Your task to perform on an android device: open app "Nova Launcher" (install if not already installed), go to login, and select forgot password Image 0: 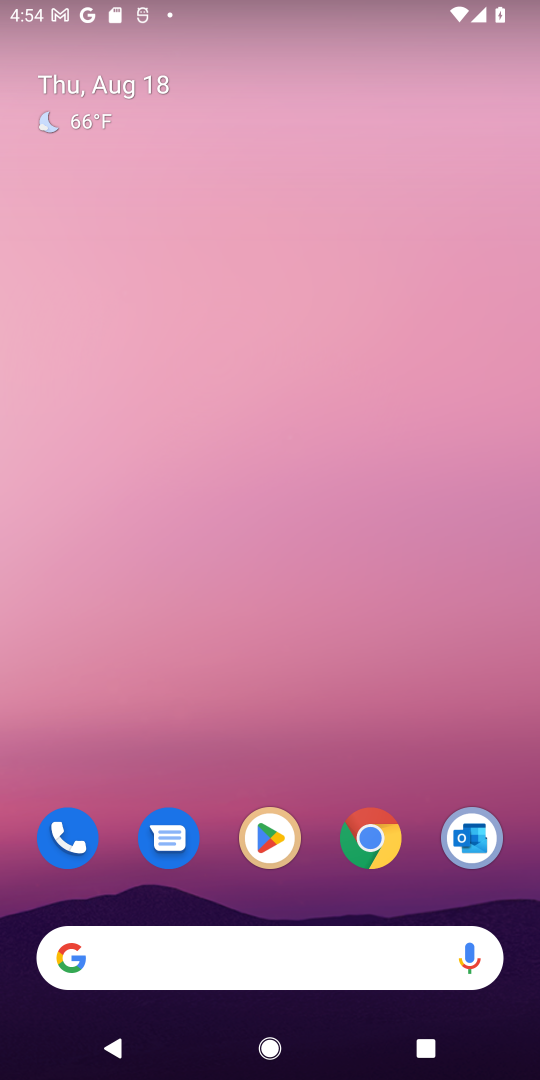
Step 0: drag from (200, 957) to (229, 245)
Your task to perform on an android device: open app "Nova Launcher" (install if not already installed), go to login, and select forgot password Image 1: 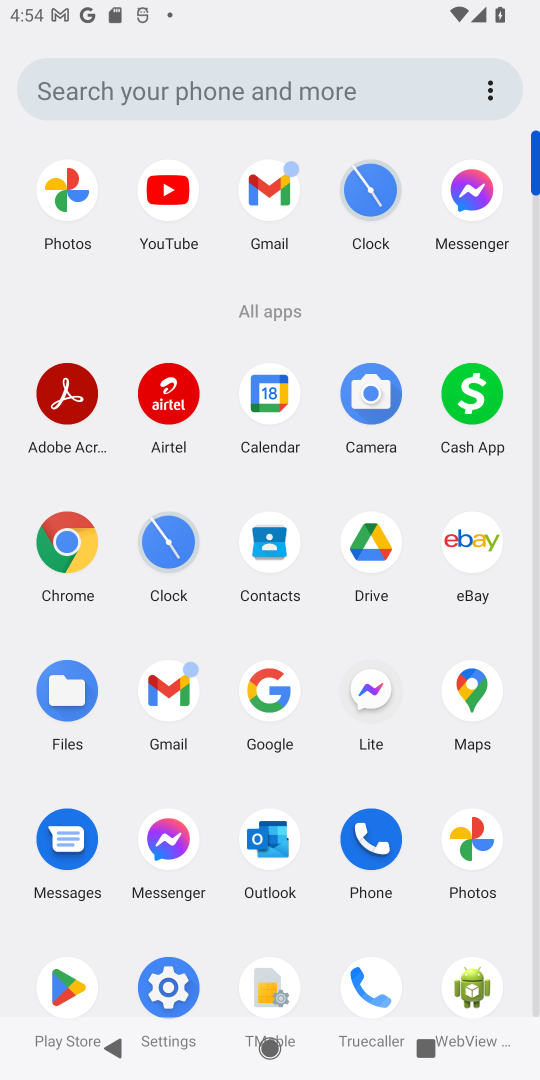
Step 1: click (70, 989)
Your task to perform on an android device: open app "Nova Launcher" (install if not already installed), go to login, and select forgot password Image 2: 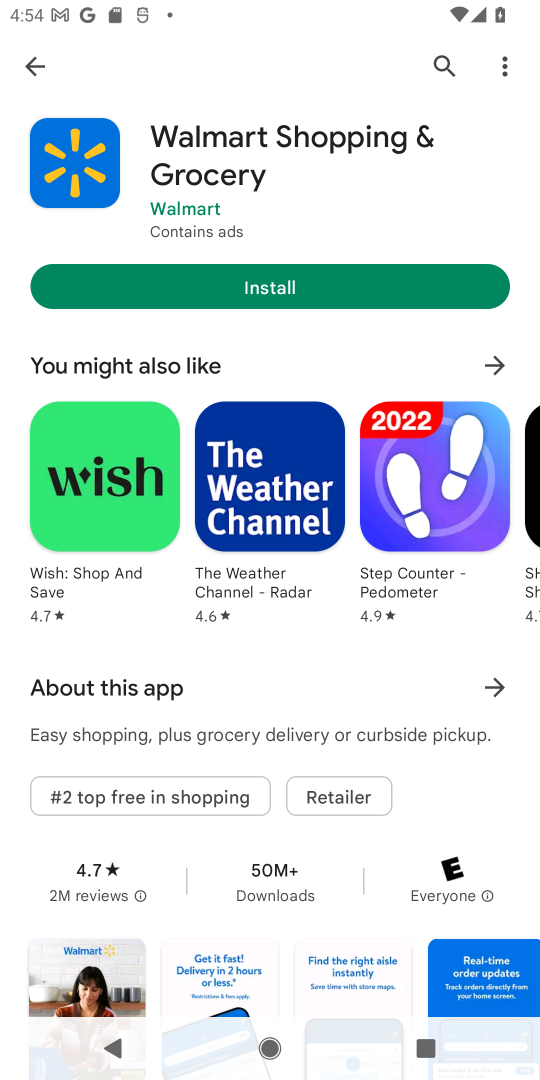
Step 2: press back button
Your task to perform on an android device: open app "Nova Launcher" (install if not already installed), go to login, and select forgot password Image 3: 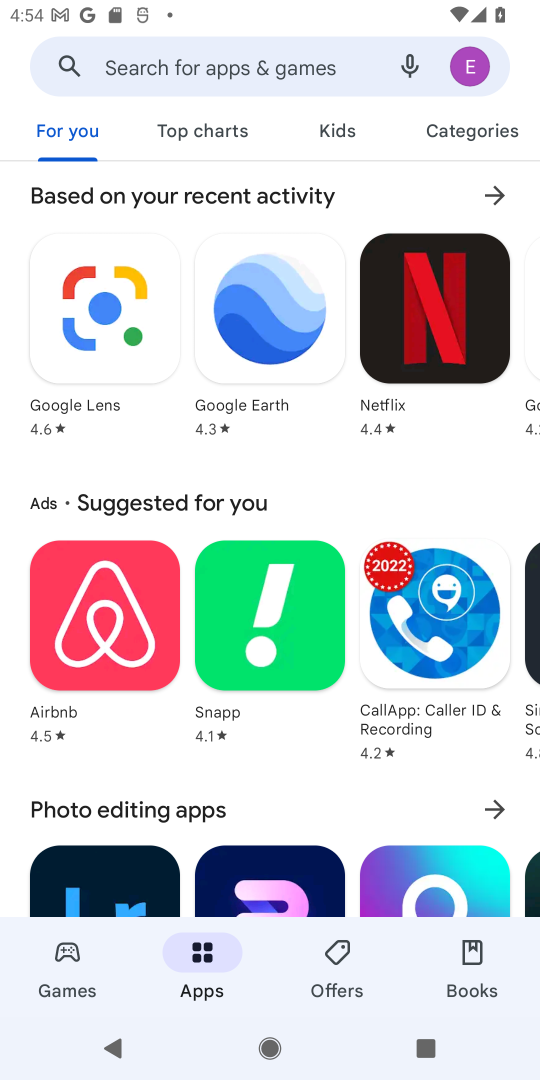
Step 3: click (236, 76)
Your task to perform on an android device: open app "Nova Launcher" (install if not already installed), go to login, and select forgot password Image 4: 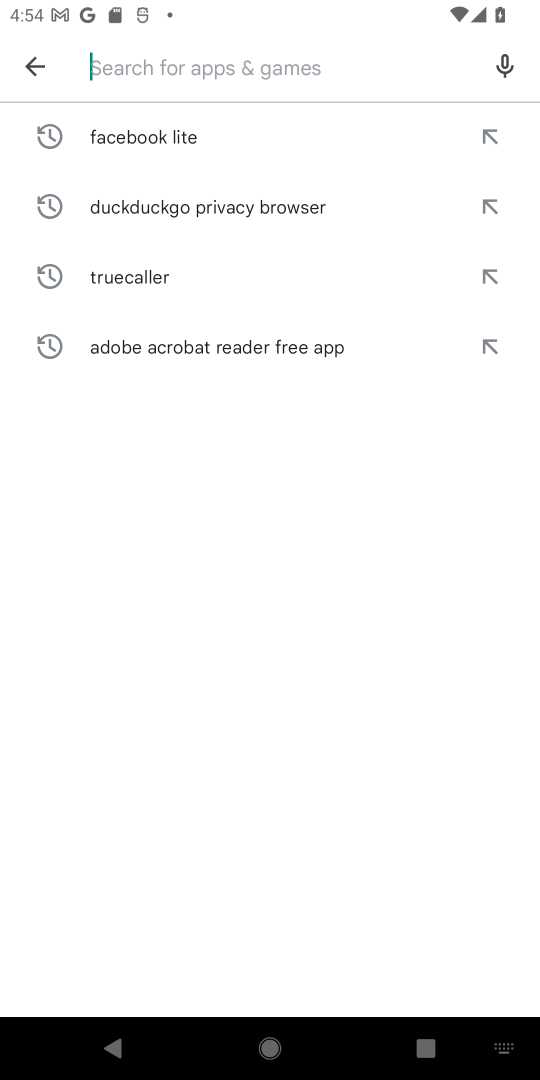
Step 4: type "Nova Launcher"
Your task to perform on an android device: open app "Nova Launcher" (install if not already installed), go to login, and select forgot password Image 5: 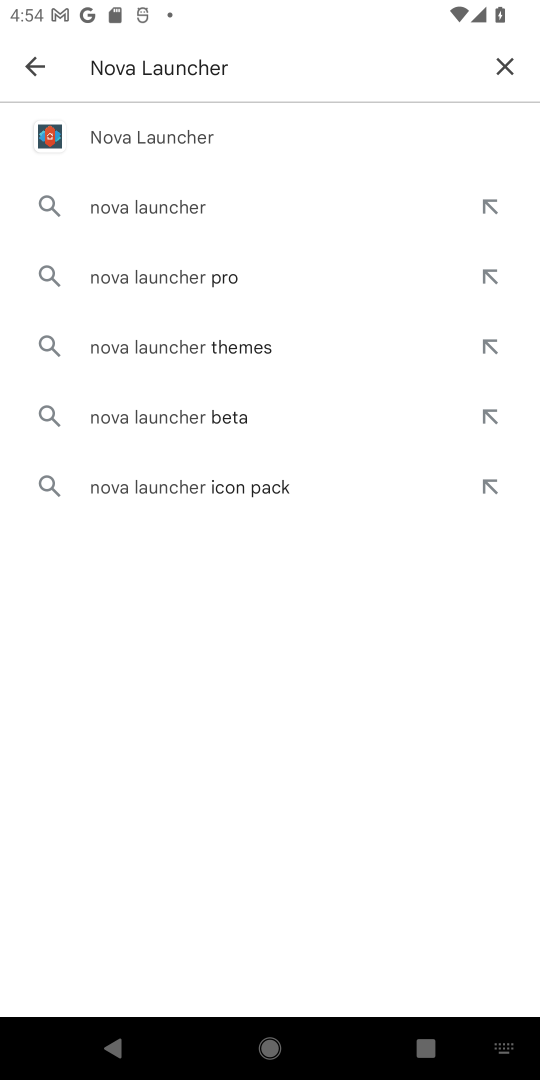
Step 5: click (179, 149)
Your task to perform on an android device: open app "Nova Launcher" (install if not already installed), go to login, and select forgot password Image 6: 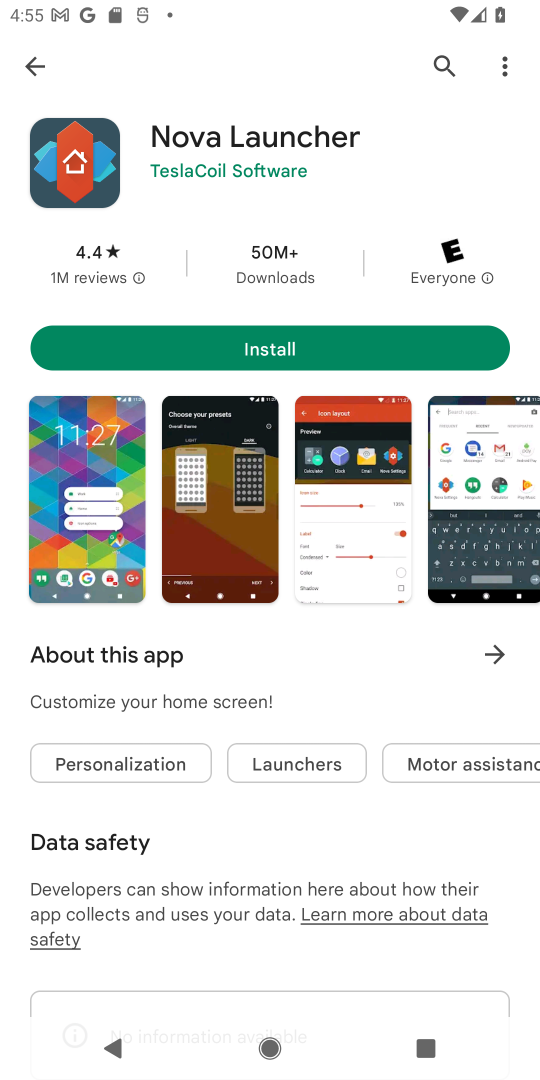
Step 6: click (282, 350)
Your task to perform on an android device: open app "Nova Launcher" (install if not already installed), go to login, and select forgot password Image 7: 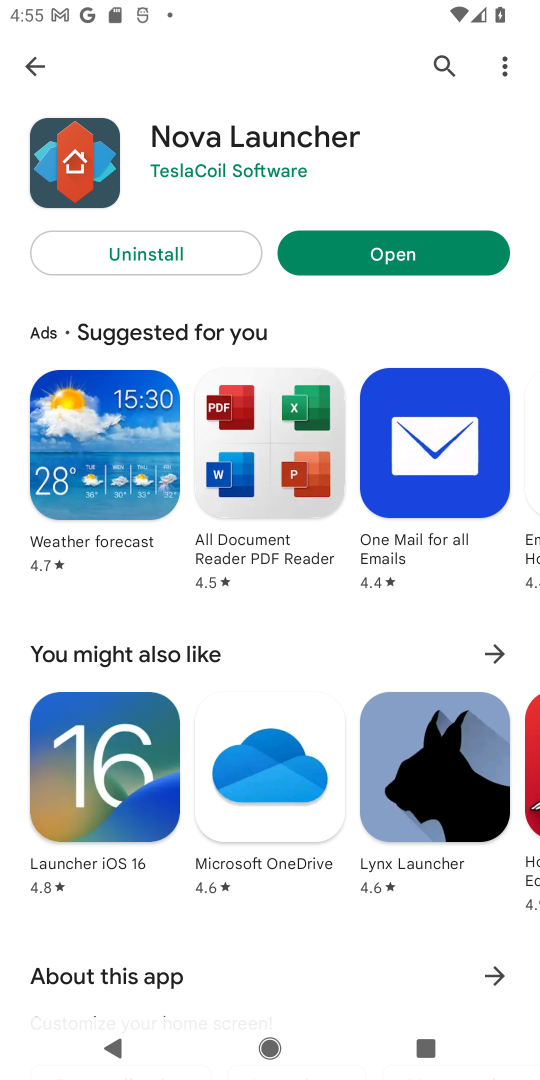
Step 7: click (383, 259)
Your task to perform on an android device: open app "Nova Launcher" (install if not already installed), go to login, and select forgot password Image 8: 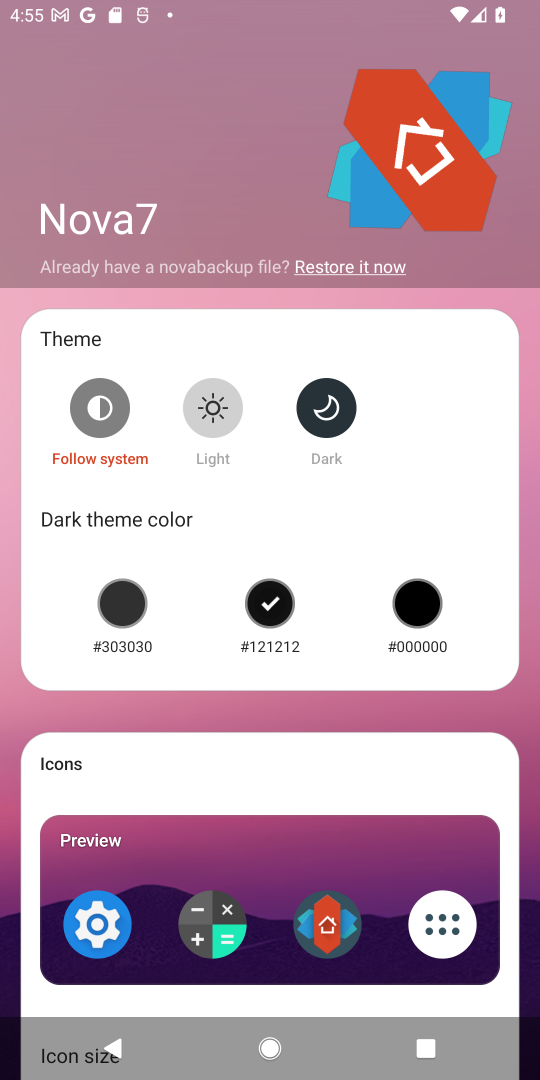
Step 8: drag from (115, 679) to (320, 280)
Your task to perform on an android device: open app "Nova Launcher" (install if not already installed), go to login, and select forgot password Image 9: 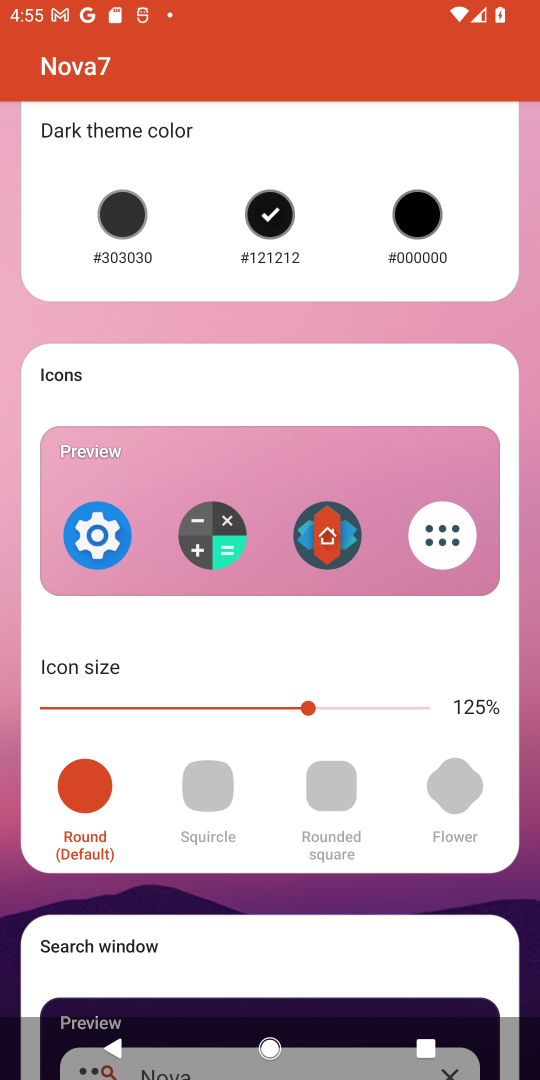
Step 9: drag from (217, 834) to (414, 415)
Your task to perform on an android device: open app "Nova Launcher" (install if not already installed), go to login, and select forgot password Image 10: 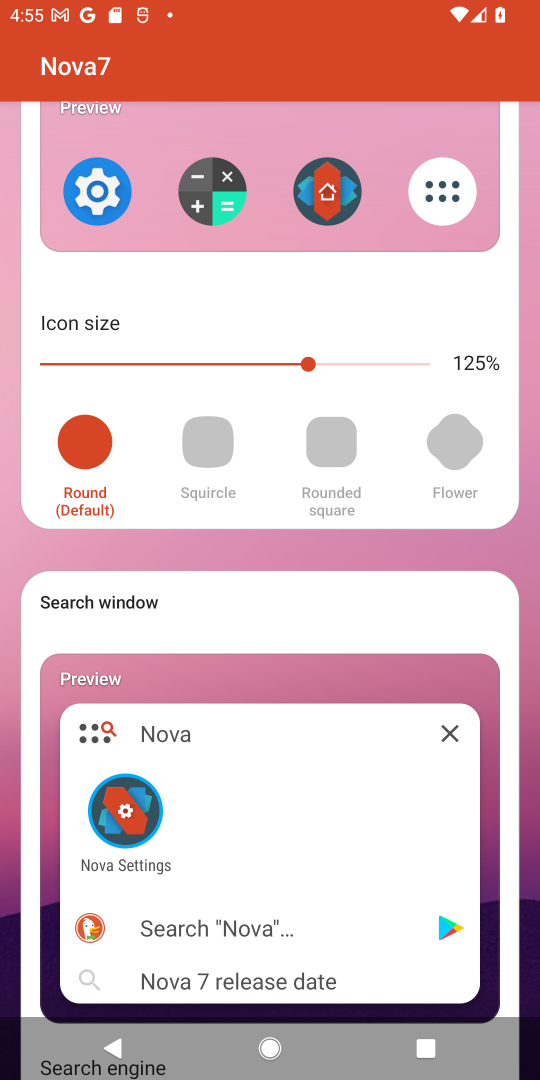
Step 10: drag from (277, 799) to (459, 508)
Your task to perform on an android device: open app "Nova Launcher" (install if not already installed), go to login, and select forgot password Image 11: 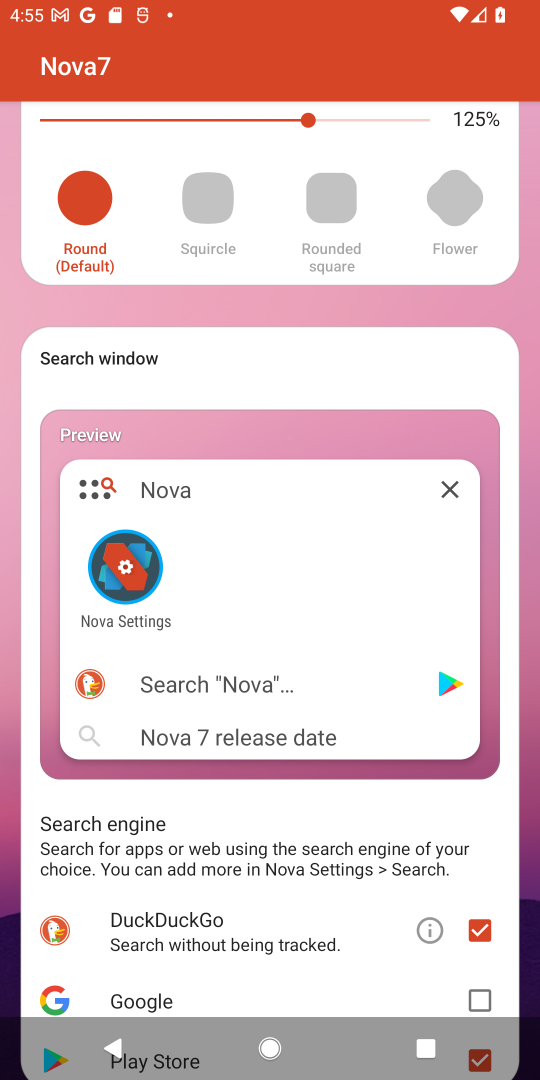
Step 11: drag from (293, 882) to (489, 508)
Your task to perform on an android device: open app "Nova Launcher" (install if not already installed), go to login, and select forgot password Image 12: 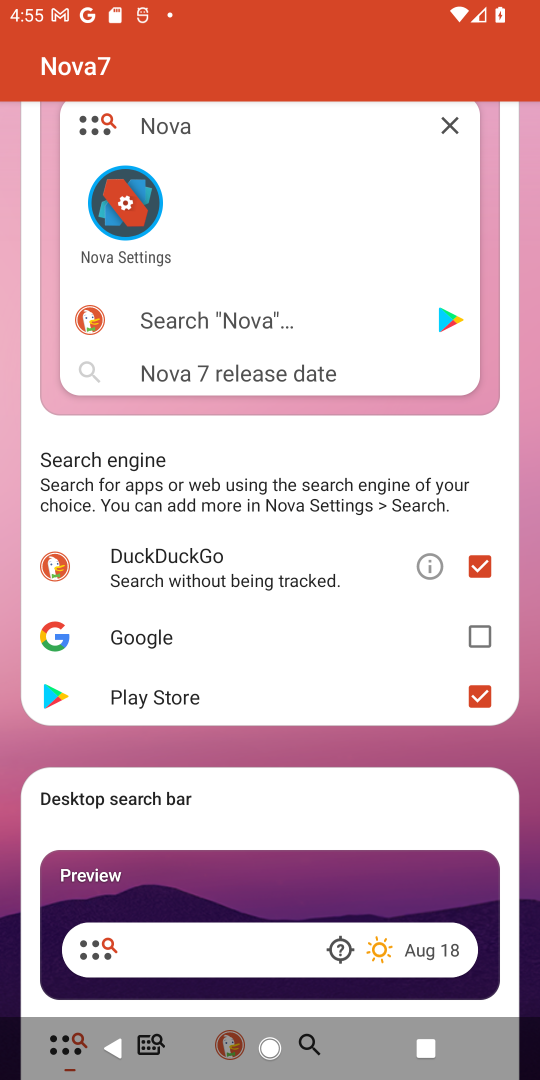
Step 12: drag from (360, 855) to (510, 607)
Your task to perform on an android device: open app "Nova Launcher" (install if not already installed), go to login, and select forgot password Image 13: 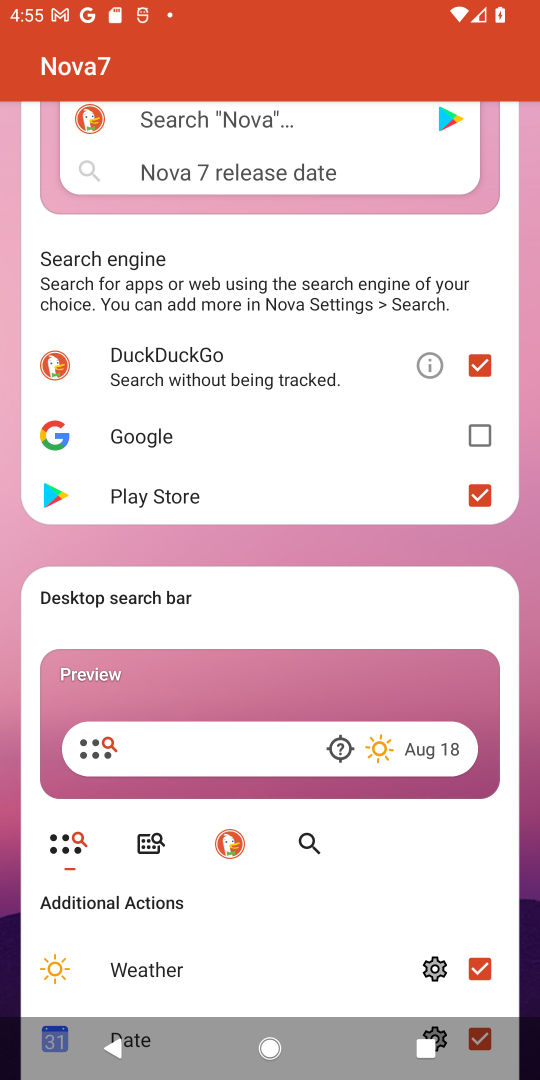
Step 13: drag from (291, 863) to (420, 560)
Your task to perform on an android device: open app "Nova Launcher" (install if not already installed), go to login, and select forgot password Image 14: 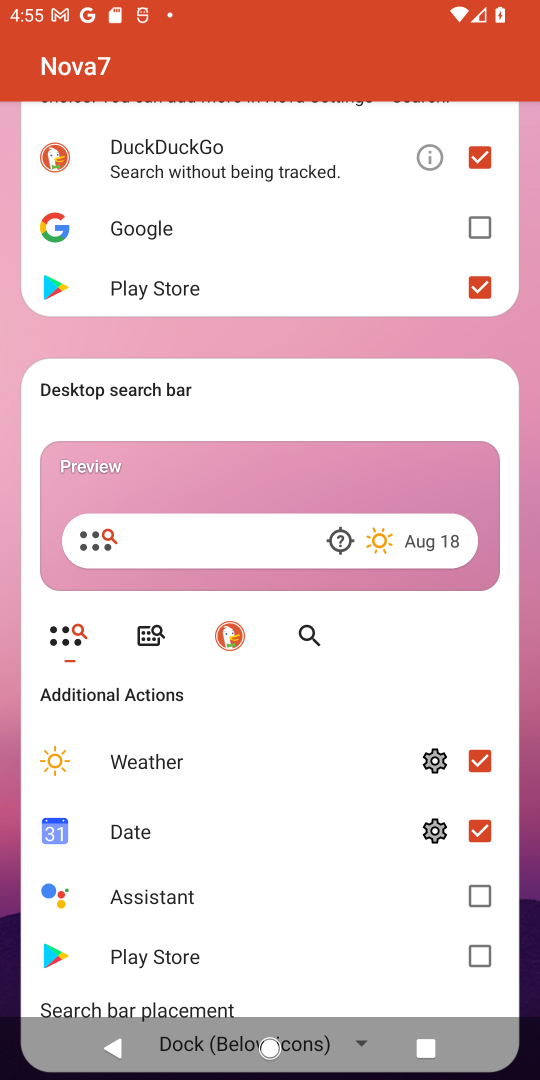
Step 14: drag from (274, 937) to (424, 662)
Your task to perform on an android device: open app "Nova Launcher" (install if not already installed), go to login, and select forgot password Image 15: 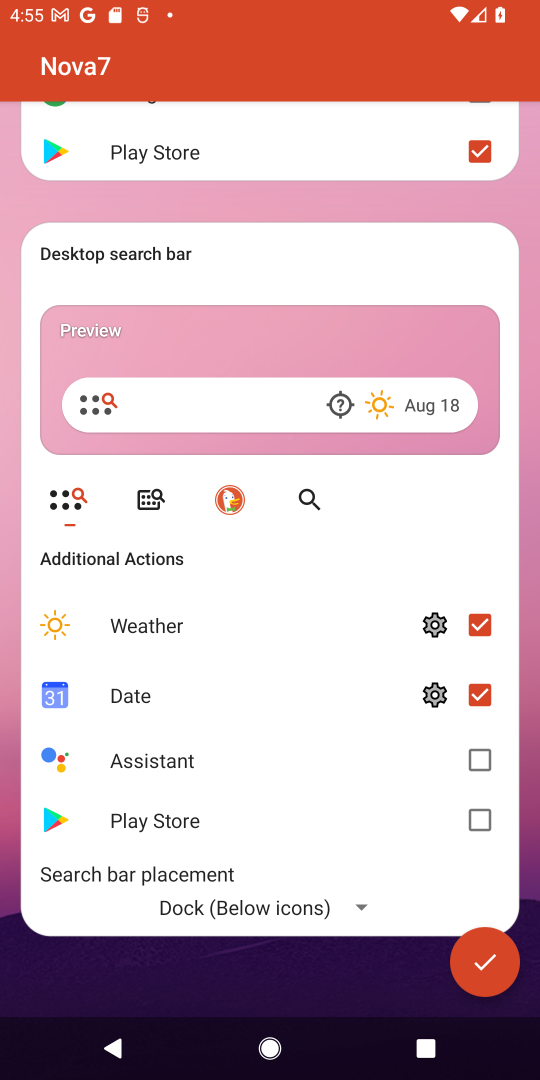
Step 15: drag from (360, 224) to (326, 840)
Your task to perform on an android device: open app "Nova Launcher" (install if not already installed), go to login, and select forgot password Image 16: 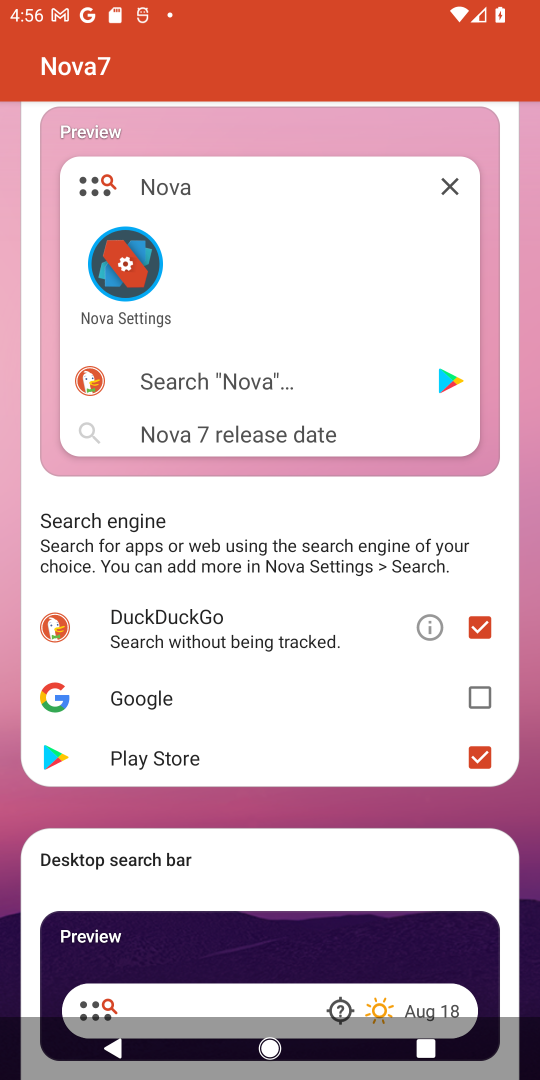
Step 16: drag from (127, 130) to (132, 788)
Your task to perform on an android device: open app "Nova Launcher" (install if not already installed), go to login, and select forgot password Image 17: 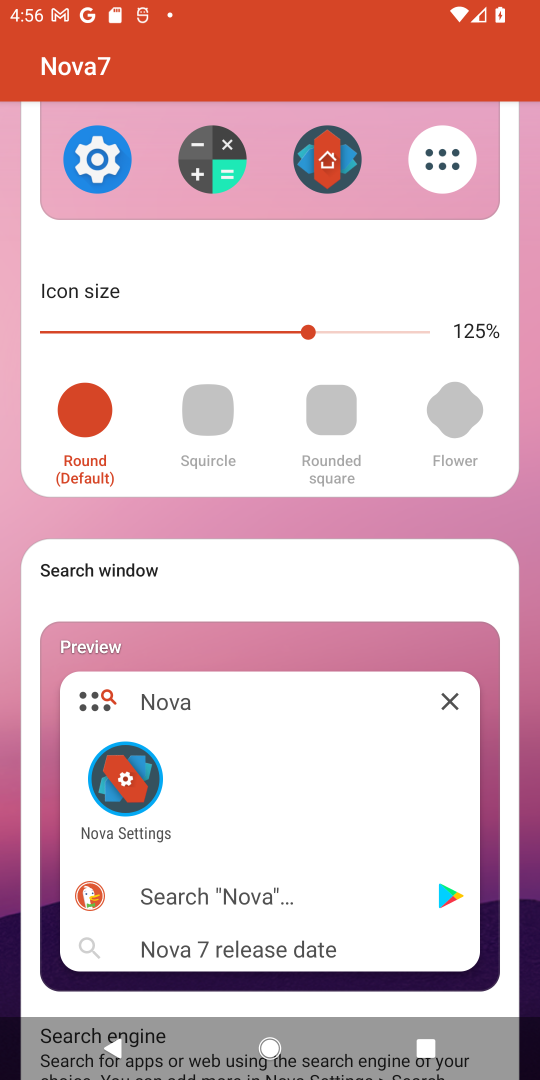
Step 17: drag from (230, 281) to (255, 801)
Your task to perform on an android device: open app "Nova Launcher" (install if not already installed), go to login, and select forgot password Image 18: 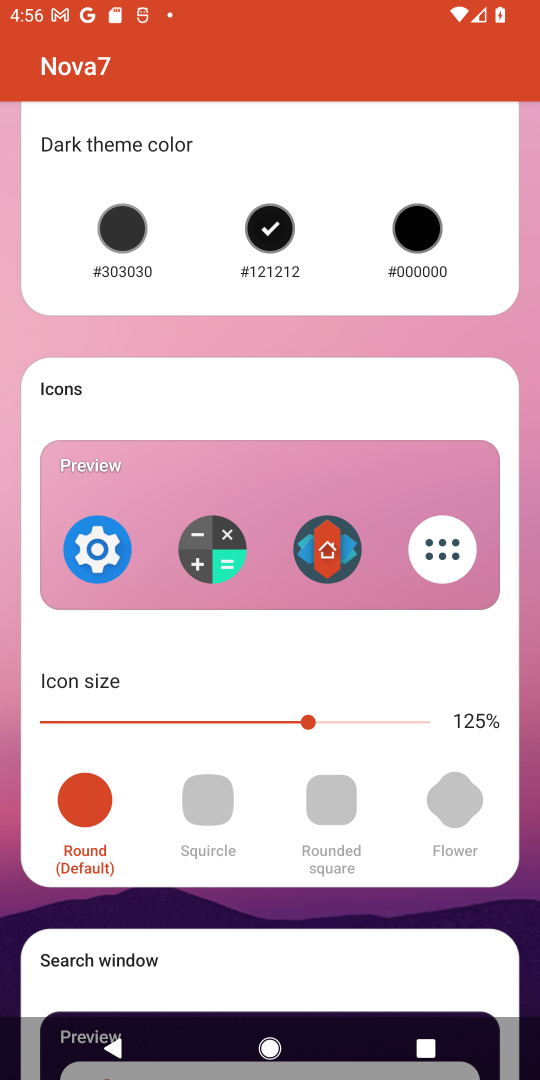
Step 18: drag from (277, 221) to (319, 712)
Your task to perform on an android device: open app "Nova Launcher" (install if not already installed), go to login, and select forgot password Image 19: 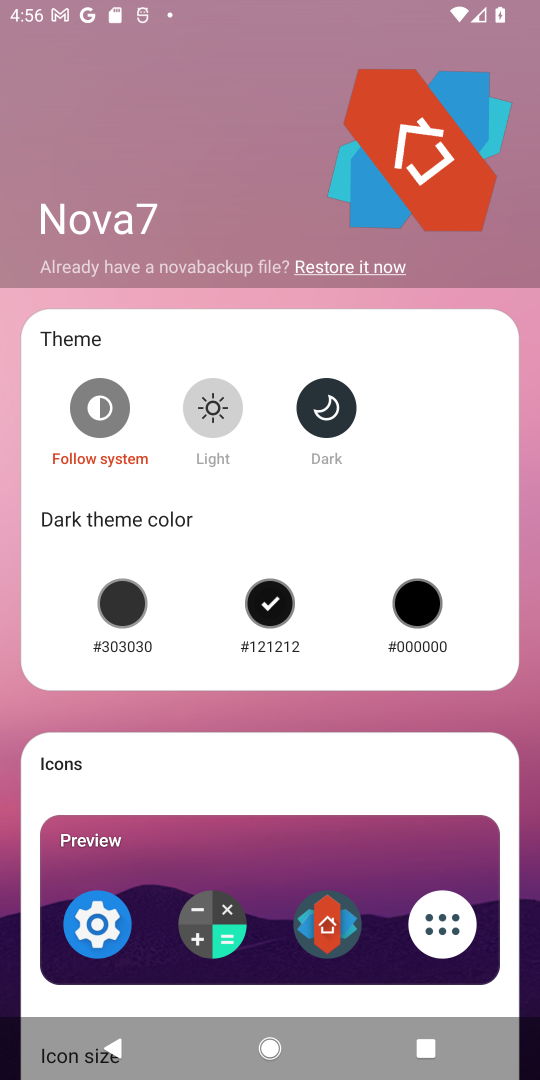
Step 19: click (435, 154)
Your task to perform on an android device: open app "Nova Launcher" (install if not already installed), go to login, and select forgot password Image 20: 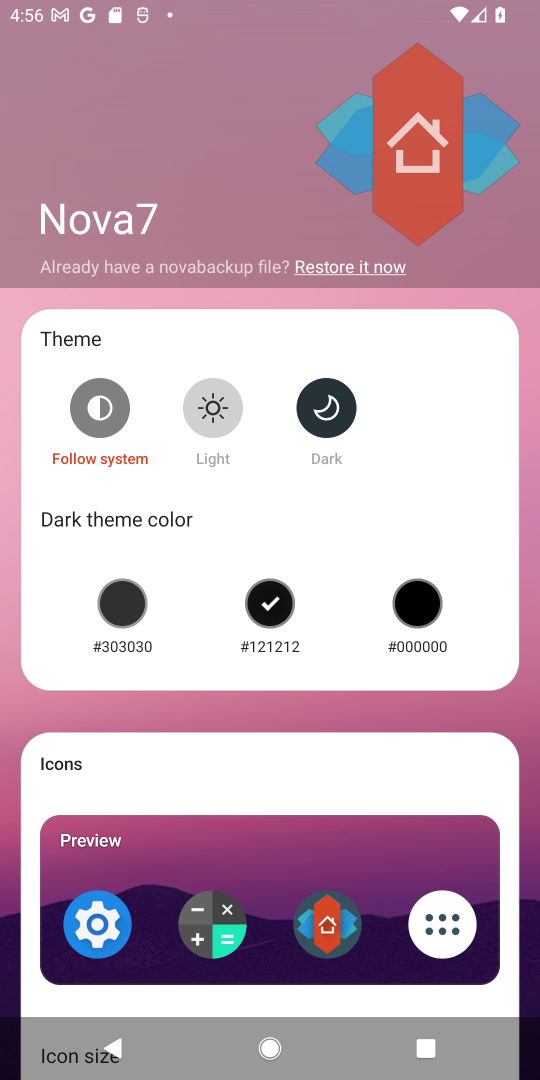
Step 20: click (341, 274)
Your task to perform on an android device: open app "Nova Launcher" (install if not already installed), go to login, and select forgot password Image 21: 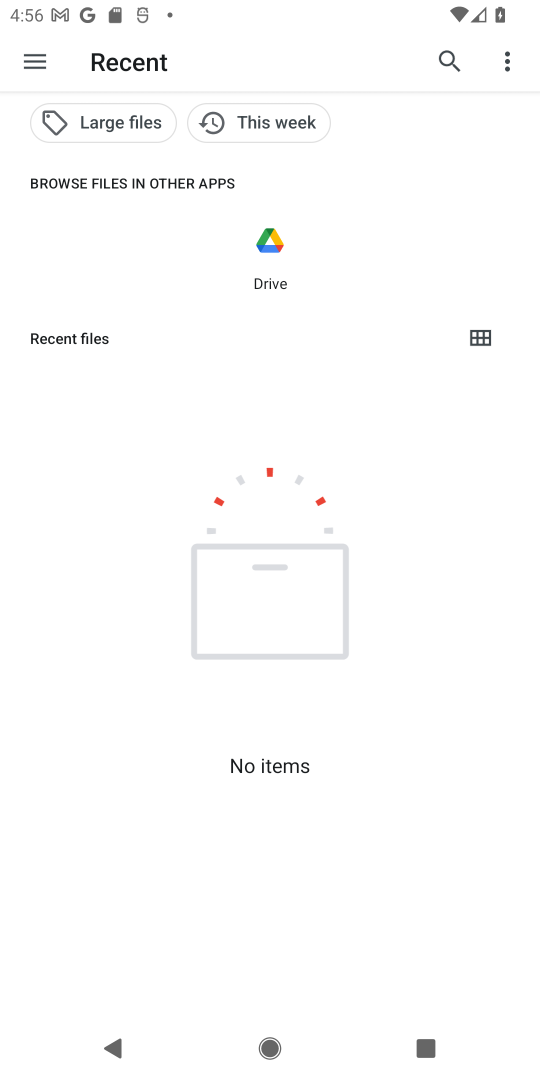
Step 21: click (37, 64)
Your task to perform on an android device: open app "Nova Launcher" (install if not already installed), go to login, and select forgot password Image 22: 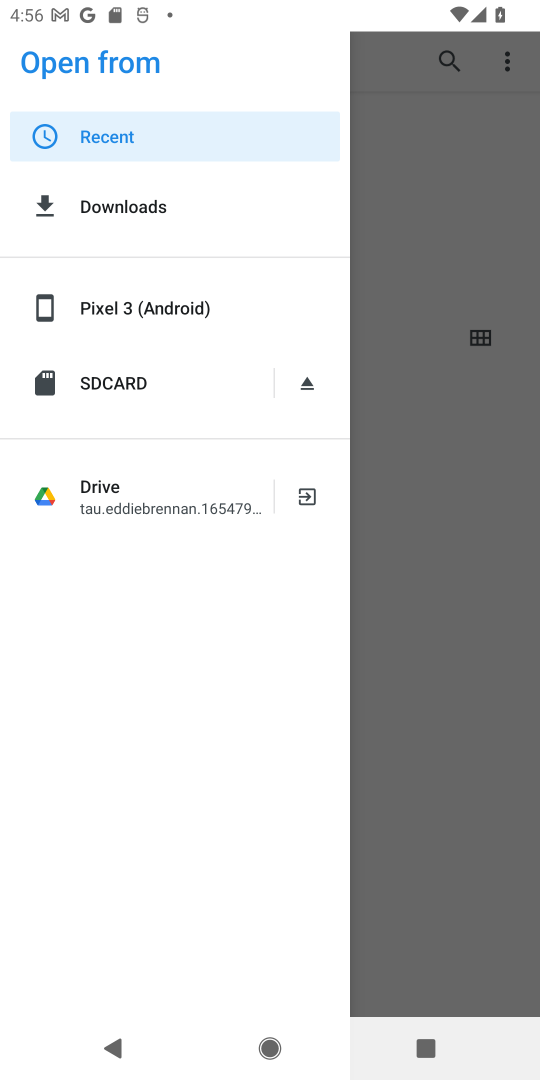
Step 22: task complete